Your task to perform on an android device: make emails show in primary in the gmail app Image 0: 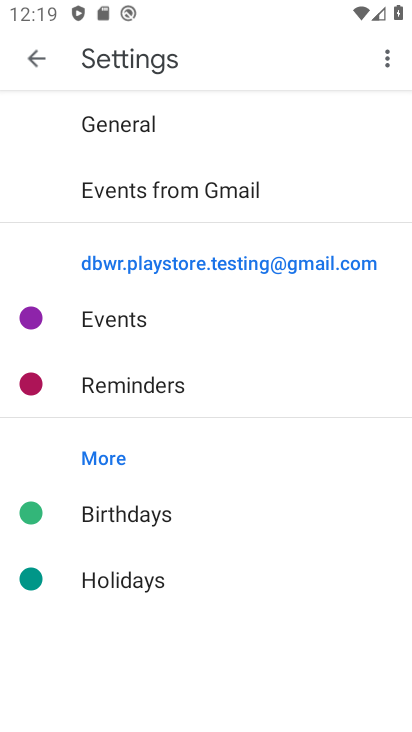
Step 0: press home button
Your task to perform on an android device: make emails show in primary in the gmail app Image 1: 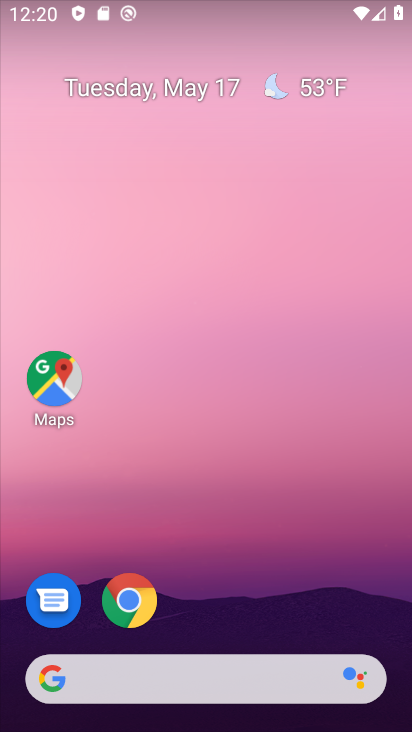
Step 1: drag from (253, 577) to (210, 102)
Your task to perform on an android device: make emails show in primary in the gmail app Image 2: 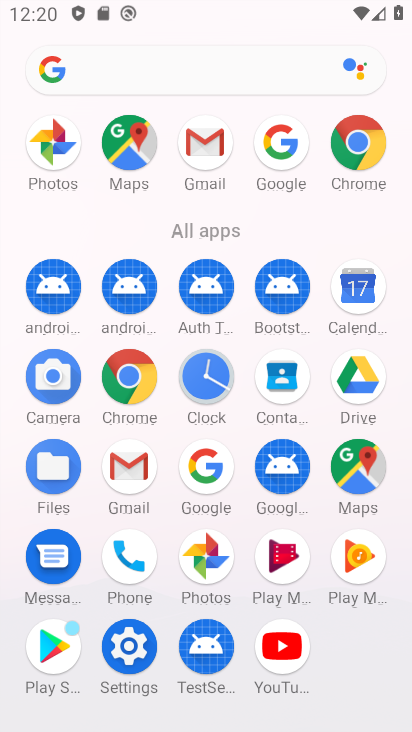
Step 2: drag from (203, 474) to (187, 66)
Your task to perform on an android device: make emails show in primary in the gmail app Image 3: 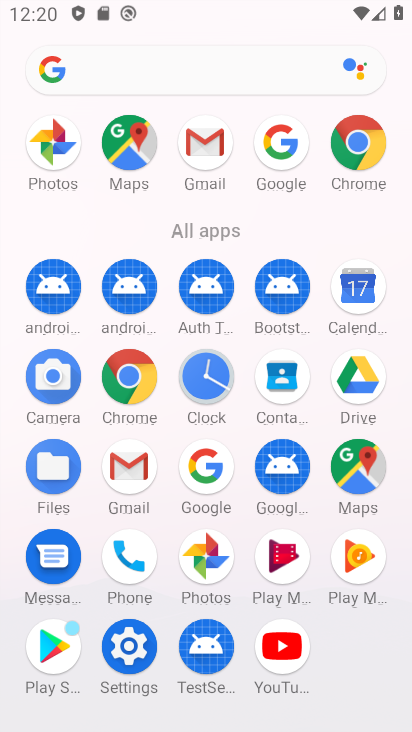
Step 3: click (211, 151)
Your task to perform on an android device: make emails show in primary in the gmail app Image 4: 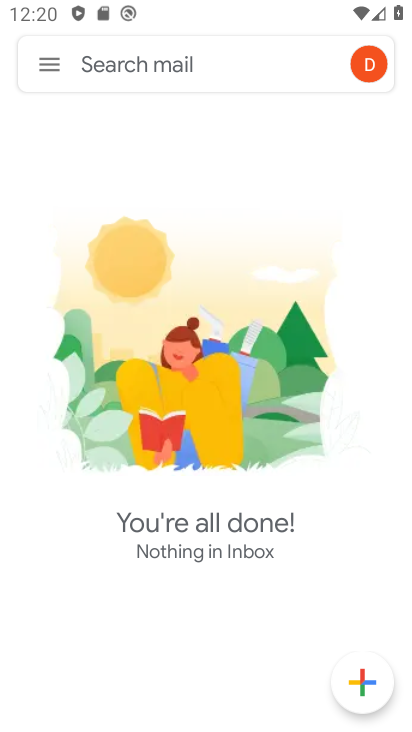
Step 4: click (54, 71)
Your task to perform on an android device: make emails show in primary in the gmail app Image 5: 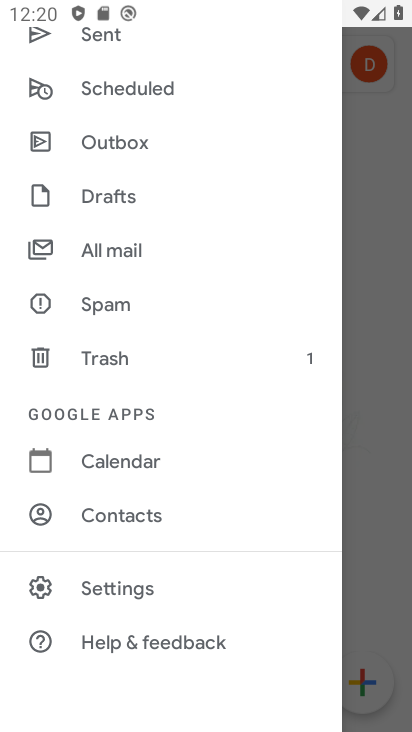
Step 5: click (116, 592)
Your task to perform on an android device: make emails show in primary in the gmail app Image 6: 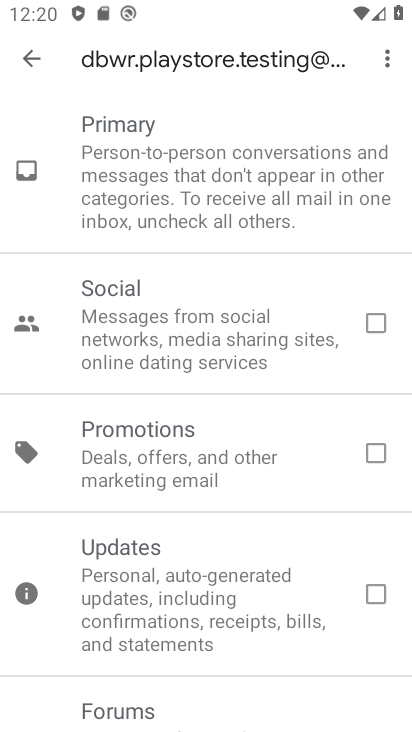
Step 6: task complete